Your task to perform on an android device: Open wifi settings Image 0: 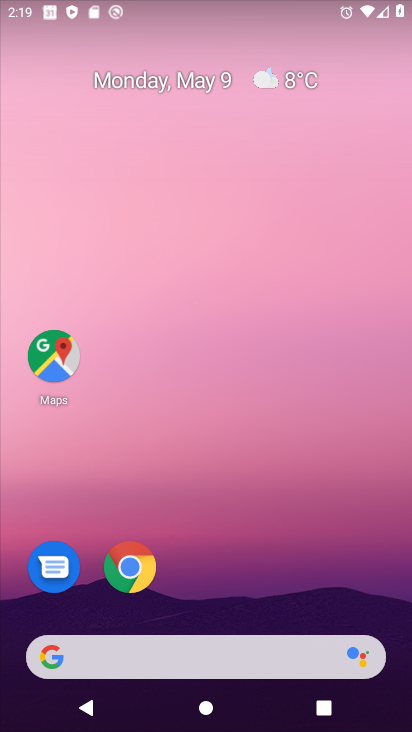
Step 0: drag from (315, 360) to (316, 245)
Your task to perform on an android device: Open wifi settings Image 1: 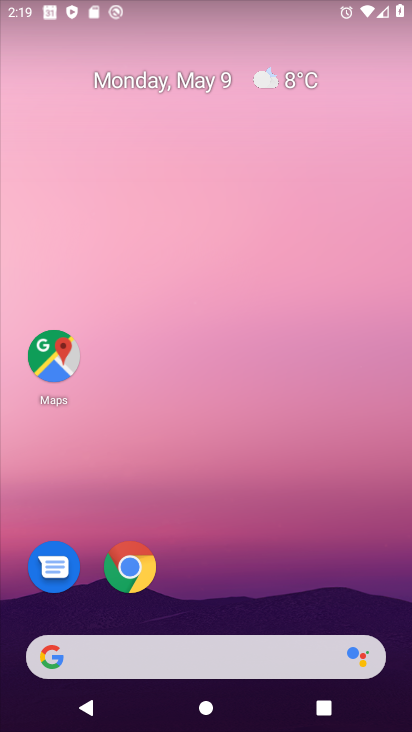
Step 1: drag from (233, 614) to (282, 244)
Your task to perform on an android device: Open wifi settings Image 2: 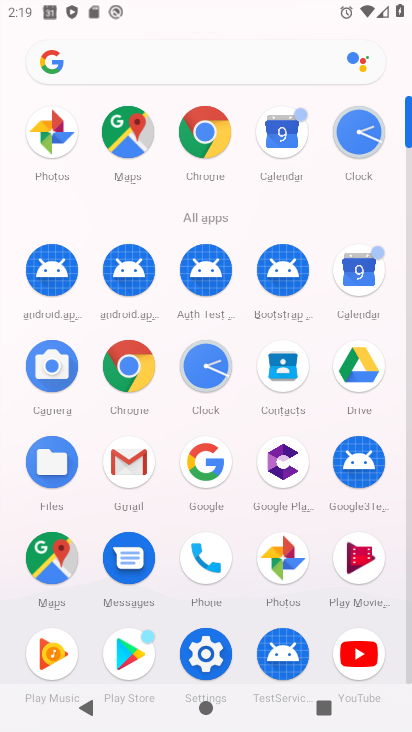
Step 2: click (210, 655)
Your task to perform on an android device: Open wifi settings Image 3: 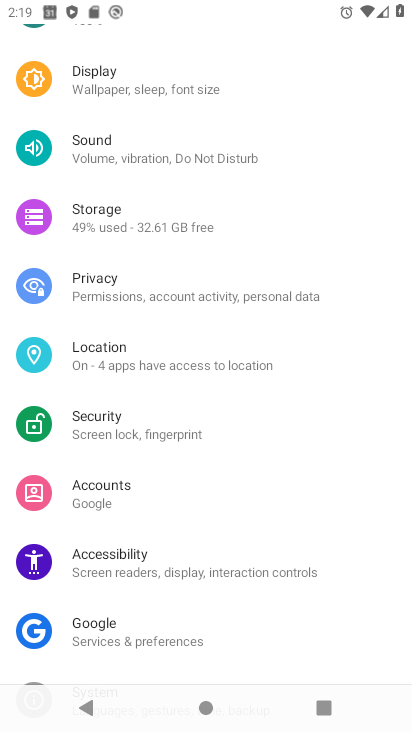
Step 3: drag from (141, 75) to (178, 595)
Your task to perform on an android device: Open wifi settings Image 4: 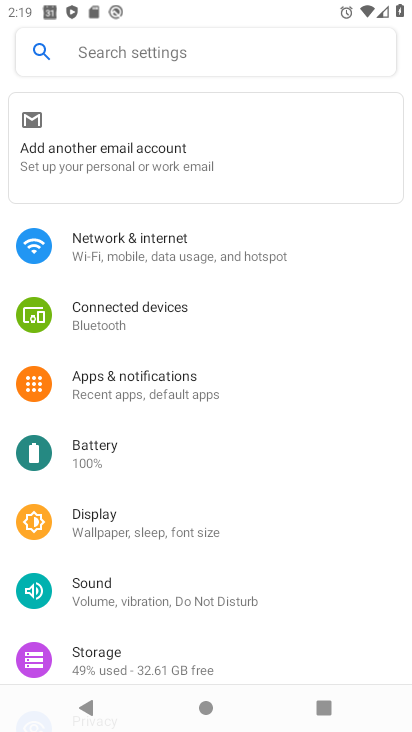
Step 4: click (175, 247)
Your task to perform on an android device: Open wifi settings Image 5: 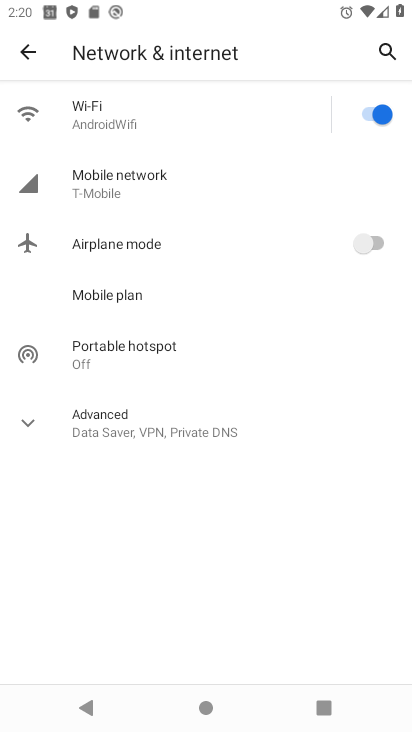
Step 5: task complete